Your task to perform on an android device: Search for usb-c on costco, select the first entry, and add it to the cart. Image 0: 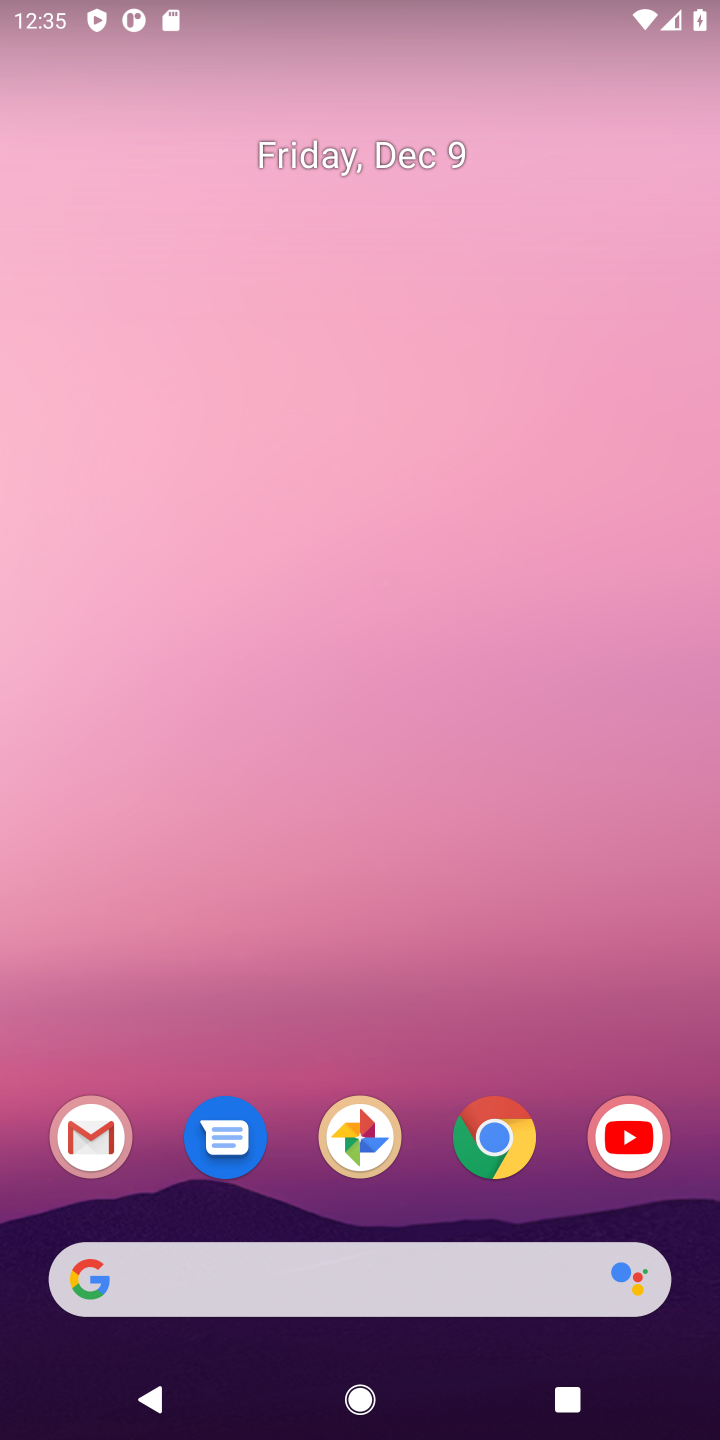
Step 0: click (495, 1142)
Your task to perform on an android device: Search for usb-c on costco, select the first entry, and add it to the cart. Image 1: 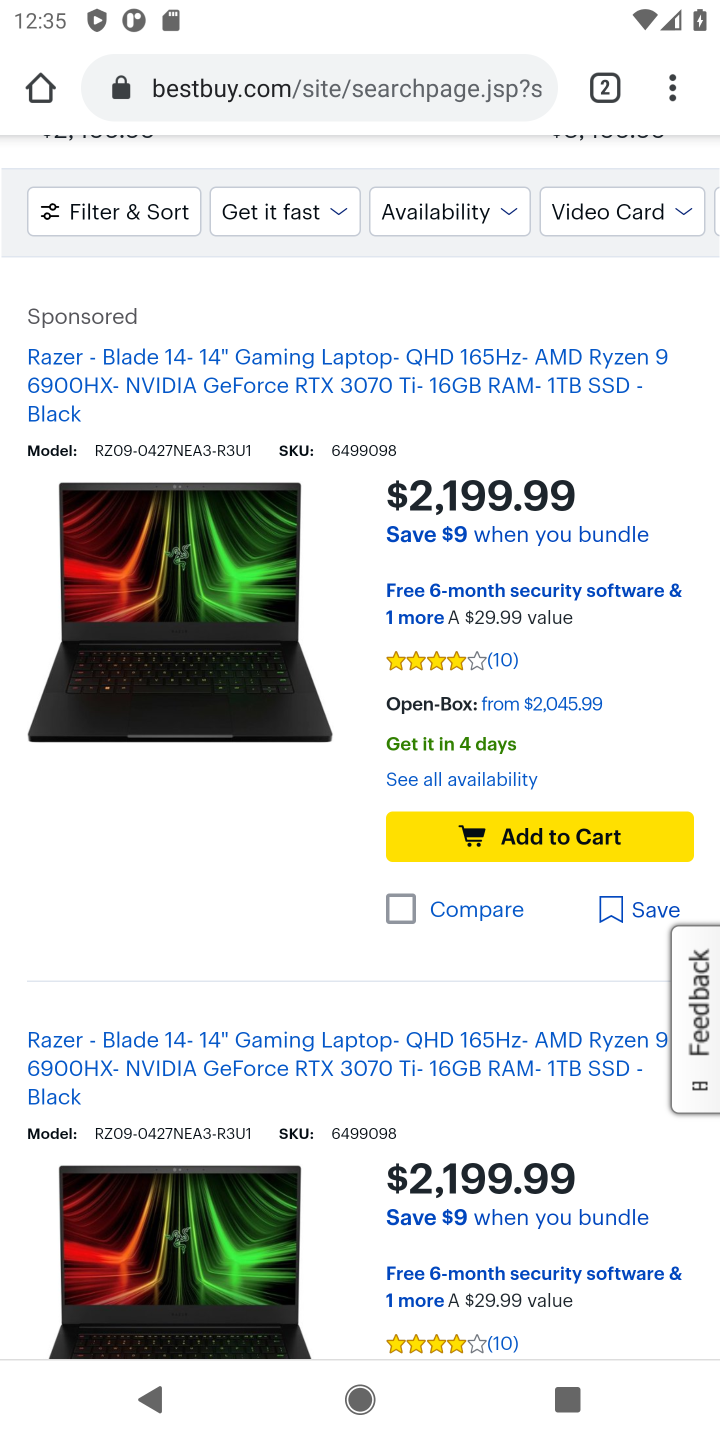
Step 1: click (575, 827)
Your task to perform on an android device: Search for usb-c on costco, select the first entry, and add it to the cart. Image 2: 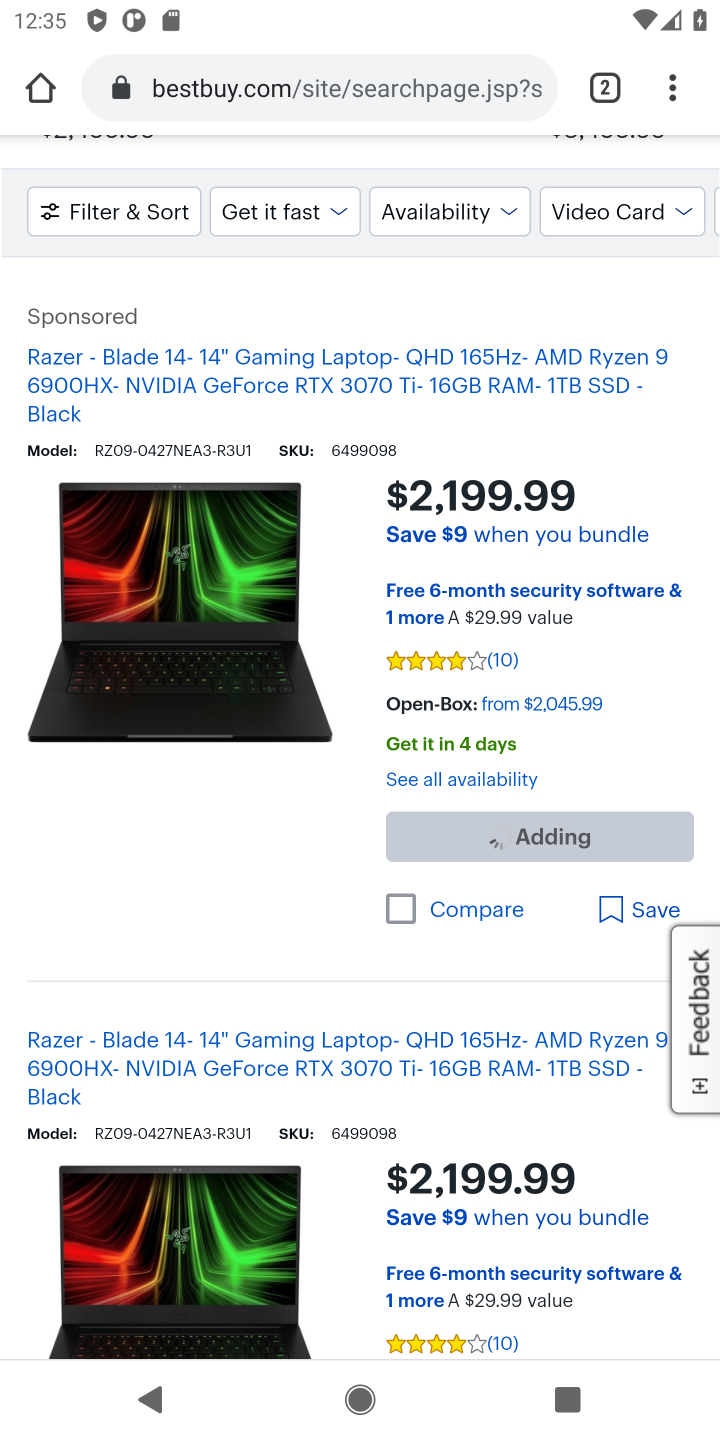
Step 2: task complete